Your task to perform on an android device: turn on sleep mode Image 0: 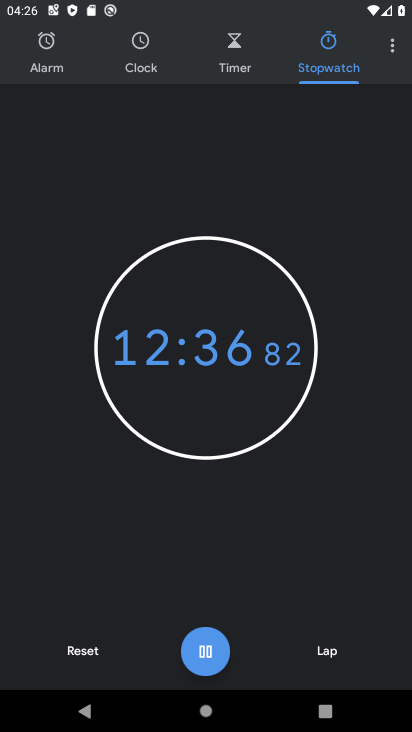
Step 0: press home button
Your task to perform on an android device: turn on sleep mode Image 1: 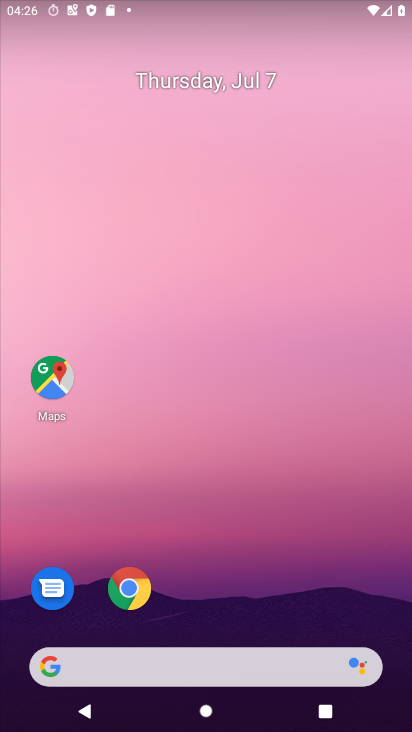
Step 1: drag from (271, 599) to (329, 156)
Your task to perform on an android device: turn on sleep mode Image 2: 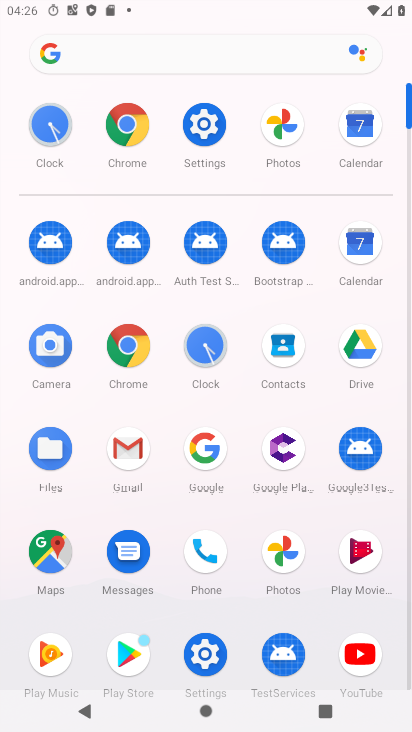
Step 2: click (204, 142)
Your task to perform on an android device: turn on sleep mode Image 3: 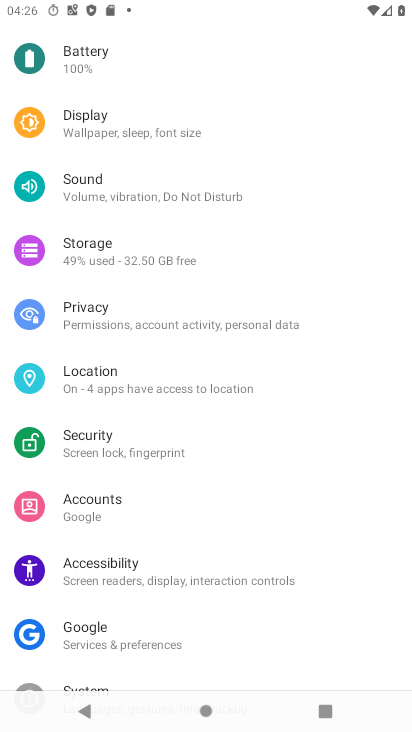
Step 3: click (132, 135)
Your task to perform on an android device: turn on sleep mode Image 4: 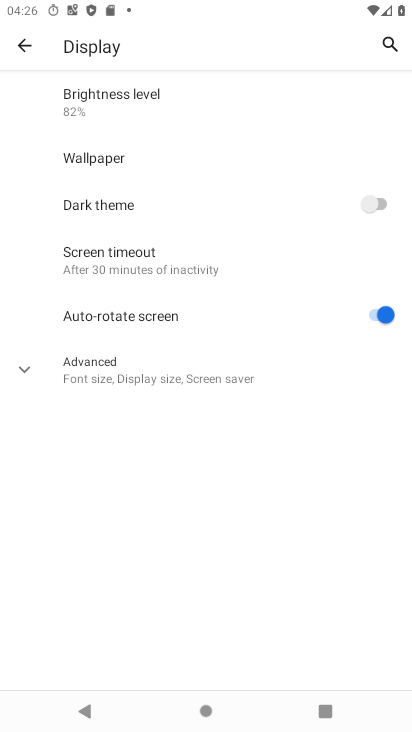
Step 4: task complete